Your task to perform on an android device: Go to settings Image 0: 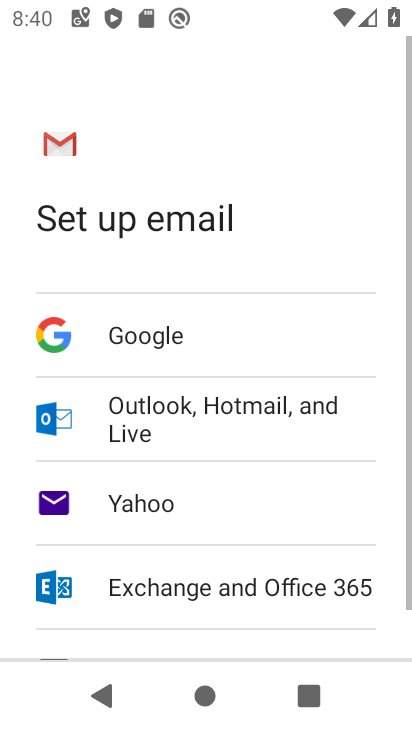
Step 0: press home button
Your task to perform on an android device: Go to settings Image 1: 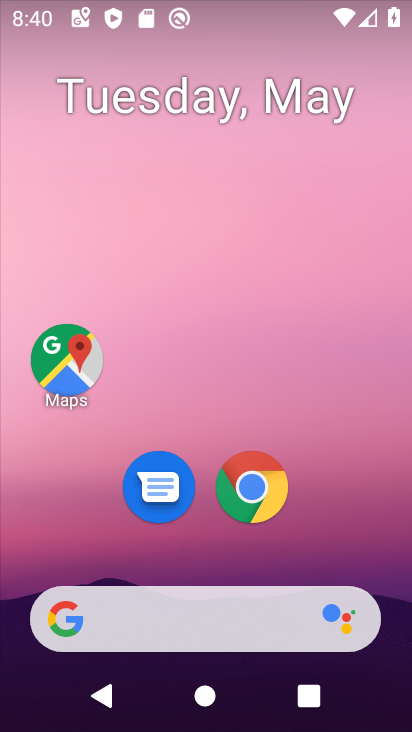
Step 1: drag from (173, 628) to (309, 25)
Your task to perform on an android device: Go to settings Image 2: 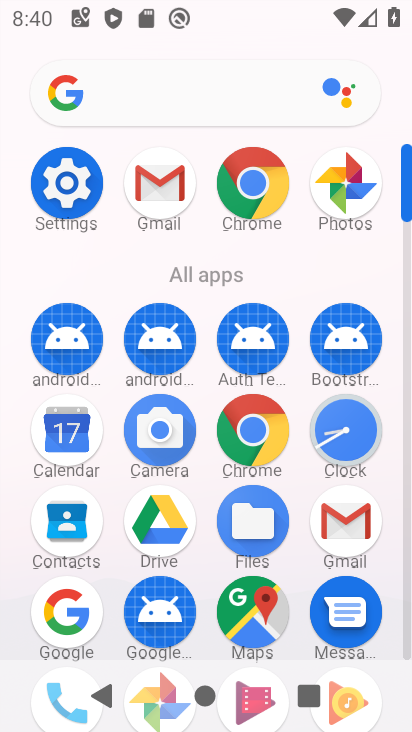
Step 2: click (76, 187)
Your task to perform on an android device: Go to settings Image 3: 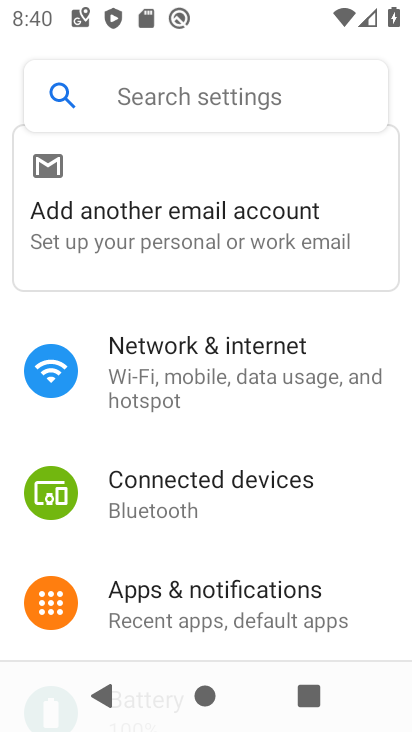
Step 3: task complete